Your task to perform on an android device: When is my next meeting? Image 0: 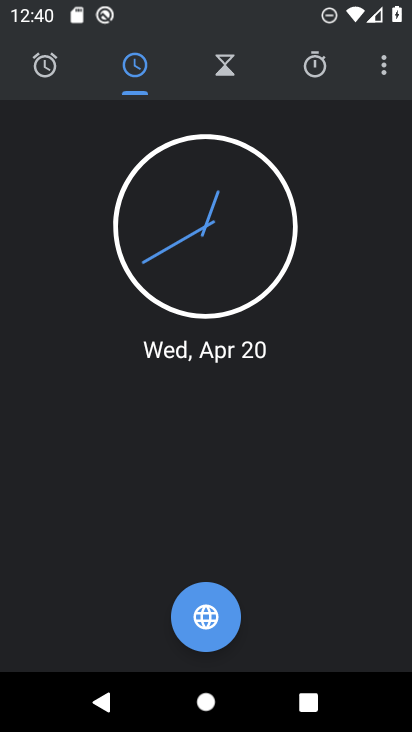
Step 0: press home button
Your task to perform on an android device: When is my next meeting? Image 1: 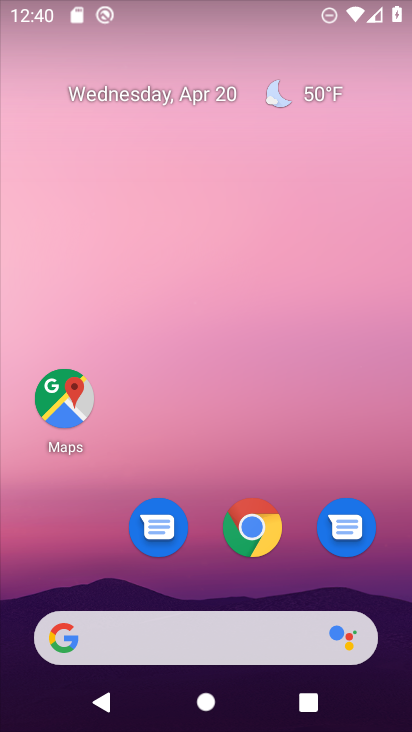
Step 1: drag from (388, 557) to (357, 40)
Your task to perform on an android device: When is my next meeting? Image 2: 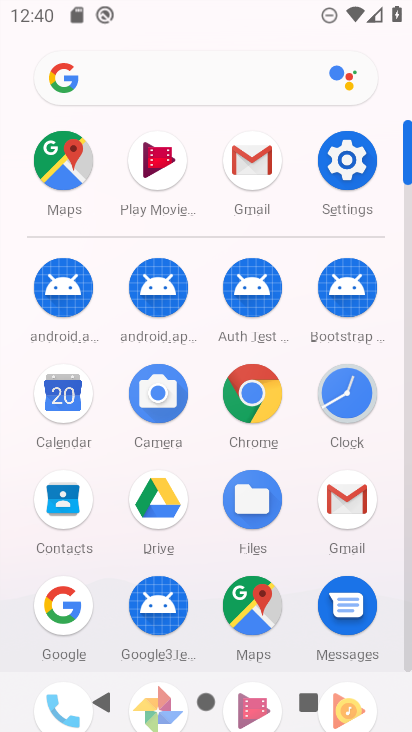
Step 2: click (56, 405)
Your task to perform on an android device: When is my next meeting? Image 3: 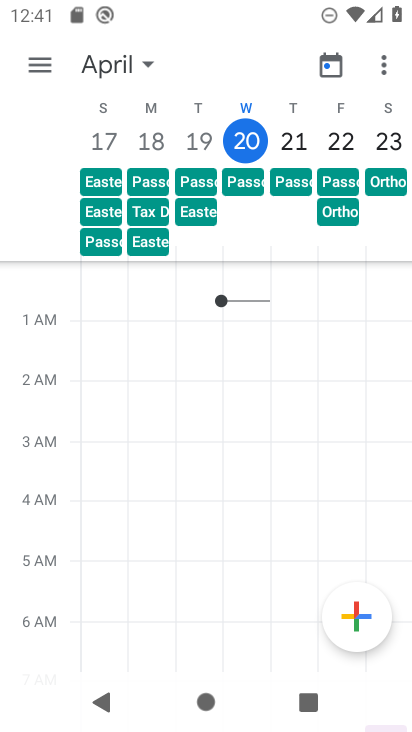
Step 3: click (145, 63)
Your task to perform on an android device: When is my next meeting? Image 4: 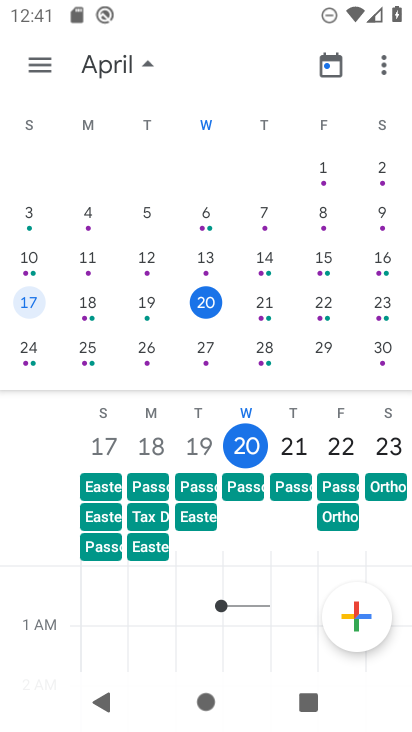
Step 4: click (45, 66)
Your task to perform on an android device: When is my next meeting? Image 5: 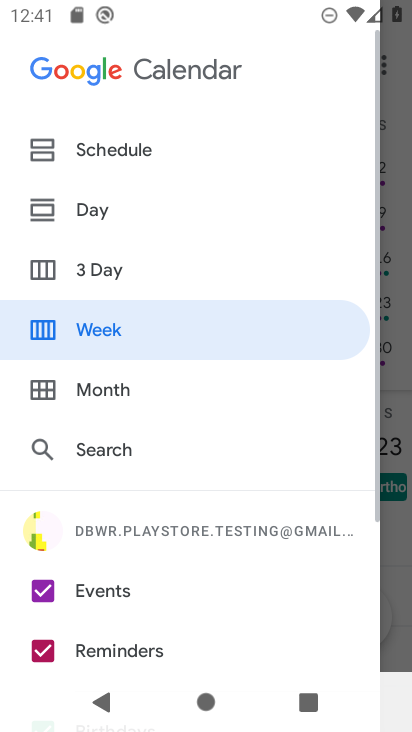
Step 5: click (110, 158)
Your task to perform on an android device: When is my next meeting? Image 6: 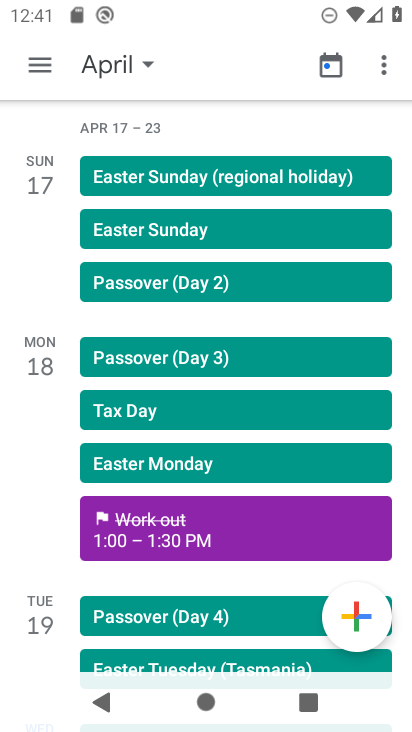
Step 6: click (36, 66)
Your task to perform on an android device: When is my next meeting? Image 7: 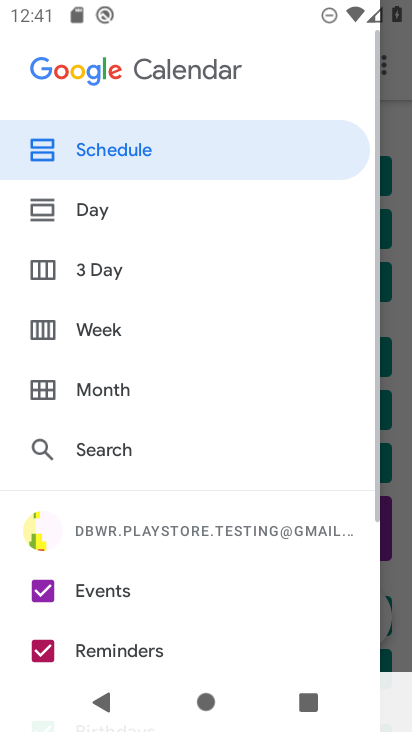
Step 7: drag from (154, 550) to (171, 264)
Your task to perform on an android device: When is my next meeting? Image 8: 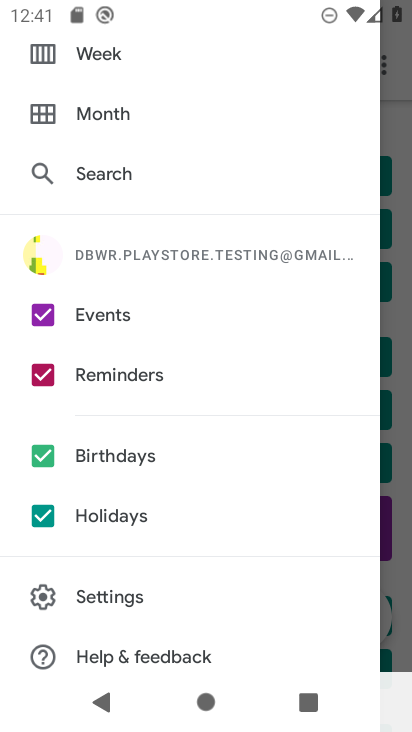
Step 8: click (37, 386)
Your task to perform on an android device: When is my next meeting? Image 9: 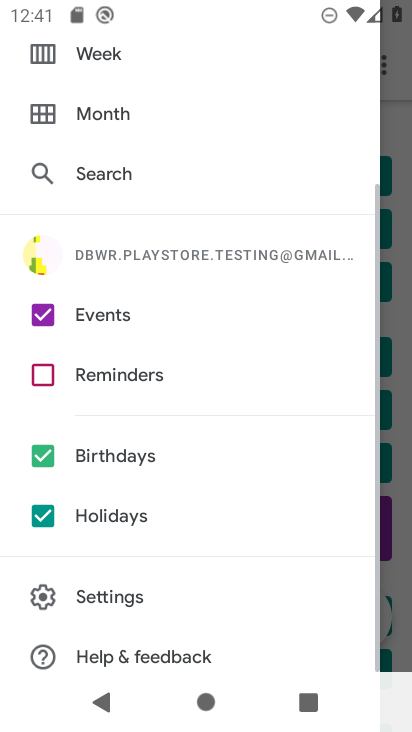
Step 9: click (49, 458)
Your task to perform on an android device: When is my next meeting? Image 10: 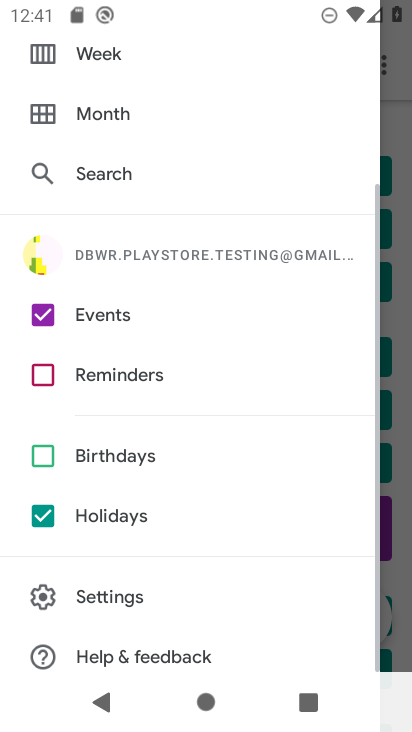
Step 10: click (41, 522)
Your task to perform on an android device: When is my next meeting? Image 11: 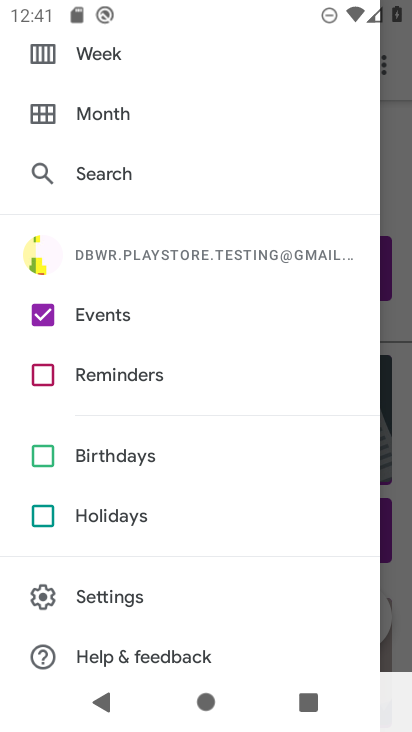
Step 11: drag from (187, 501) to (198, 666)
Your task to perform on an android device: When is my next meeting? Image 12: 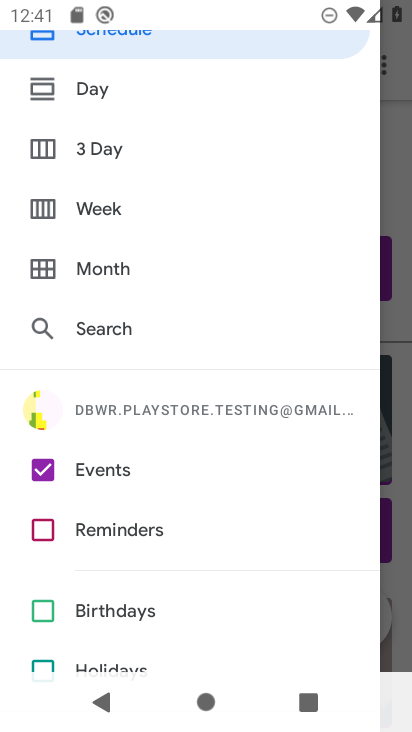
Step 12: drag from (50, 74) to (54, 229)
Your task to perform on an android device: When is my next meeting? Image 13: 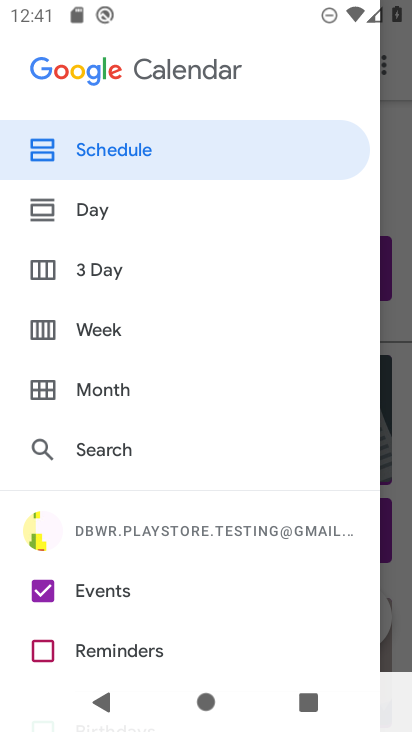
Step 13: click (57, 150)
Your task to perform on an android device: When is my next meeting? Image 14: 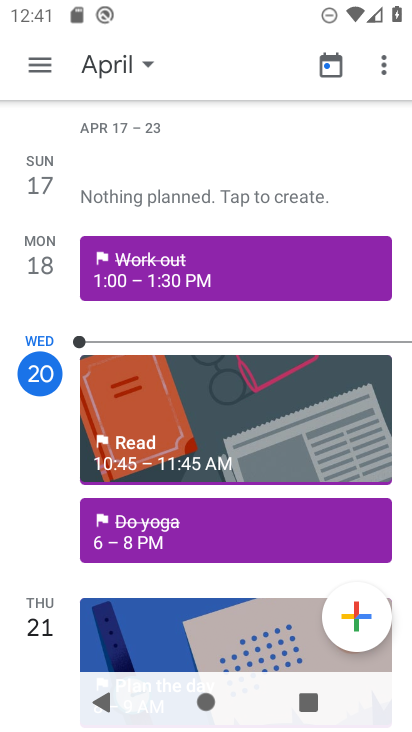
Step 14: click (213, 528)
Your task to perform on an android device: When is my next meeting? Image 15: 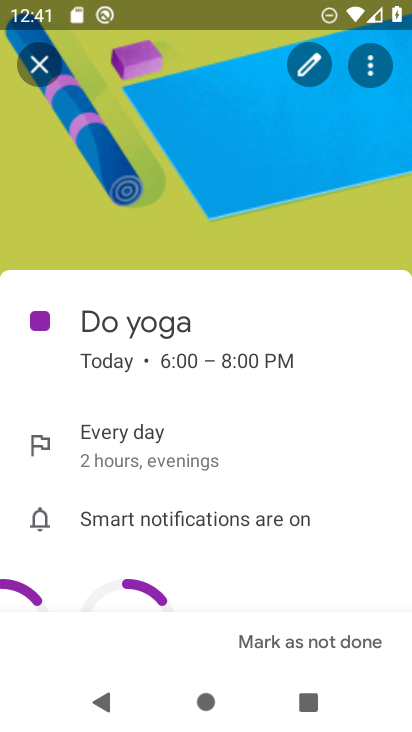
Step 15: task complete